Your task to perform on an android device: Open Google Chrome and click the shortcut for Amazon.com Image 0: 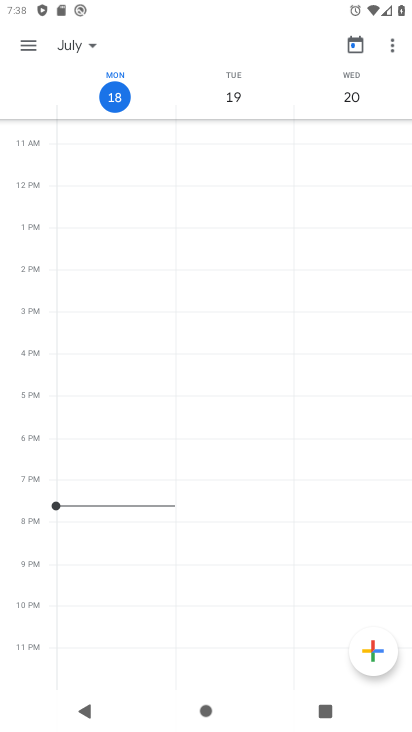
Step 0: press home button
Your task to perform on an android device: Open Google Chrome and click the shortcut for Amazon.com Image 1: 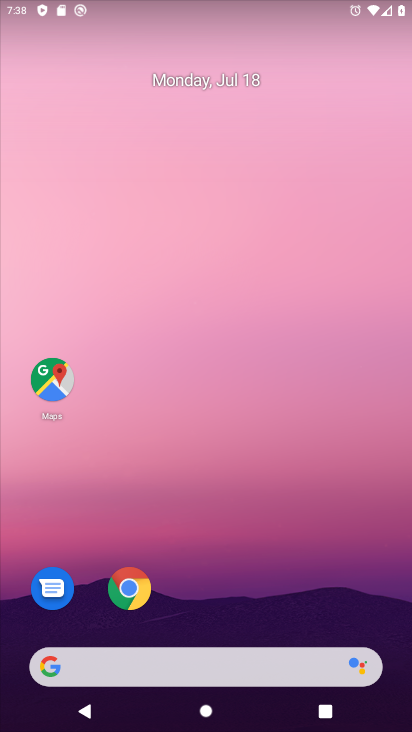
Step 1: click (132, 599)
Your task to perform on an android device: Open Google Chrome and click the shortcut for Amazon.com Image 2: 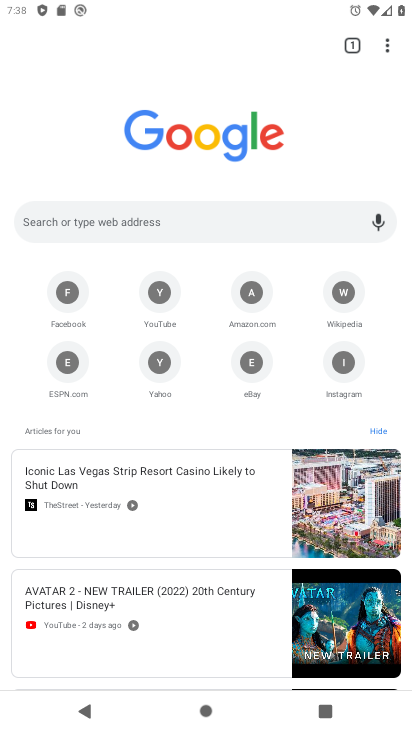
Step 2: click (253, 301)
Your task to perform on an android device: Open Google Chrome and click the shortcut for Amazon.com Image 3: 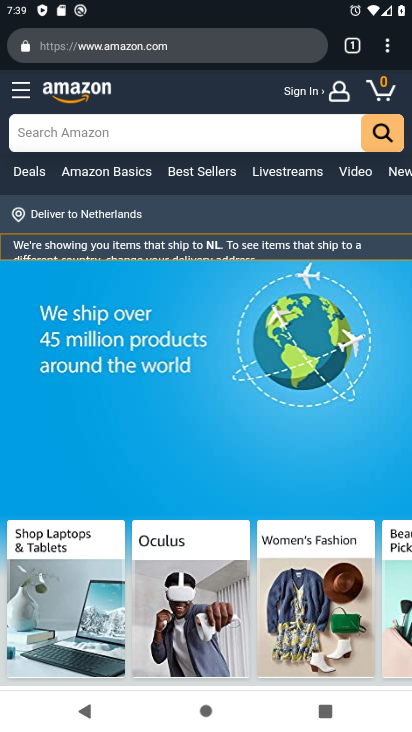
Step 3: task complete